Your task to perform on an android device: Open the map Image 0: 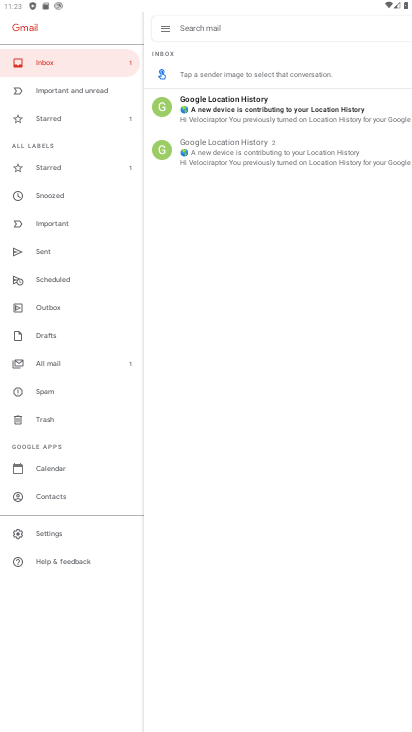
Step 0: press home button
Your task to perform on an android device: Open the map Image 1: 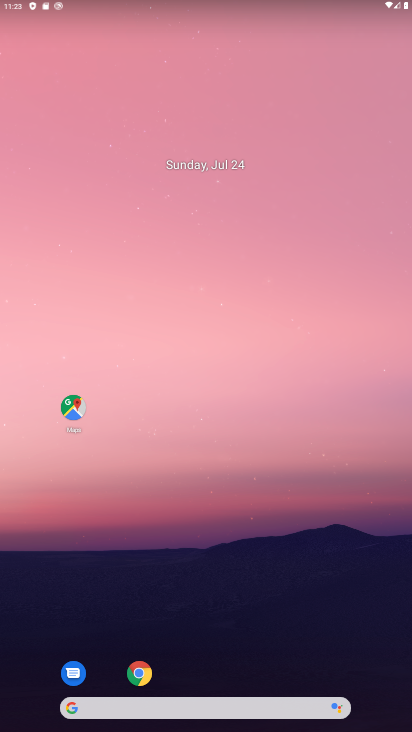
Step 1: click (72, 409)
Your task to perform on an android device: Open the map Image 2: 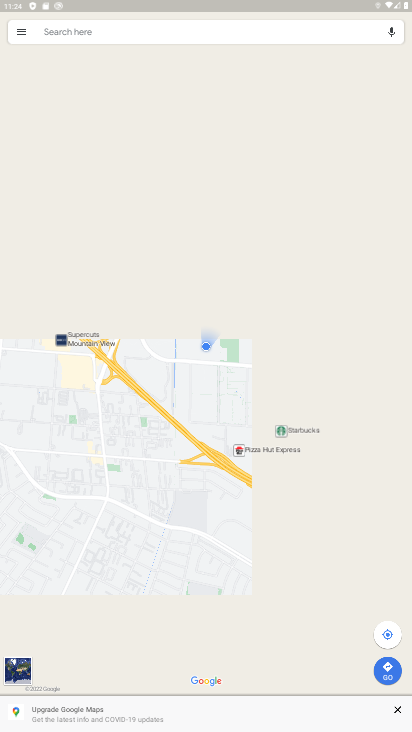
Step 2: task complete